Your task to perform on an android device: Play the last video I watched on Youtube Image 0: 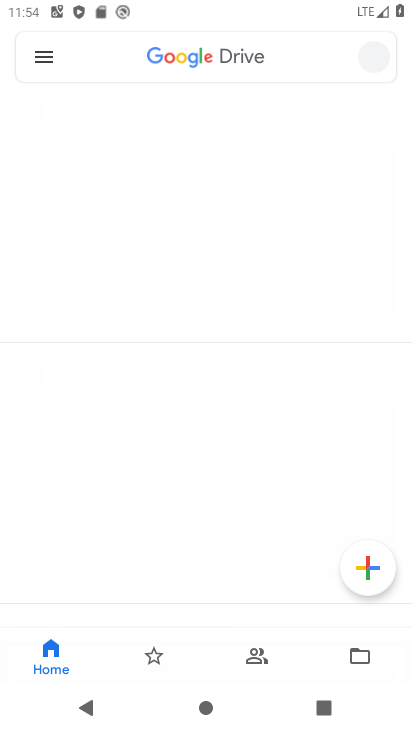
Step 0: drag from (335, 555) to (328, 291)
Your task to perform on an android device: Play the last video I watched on Youtube Image 1: 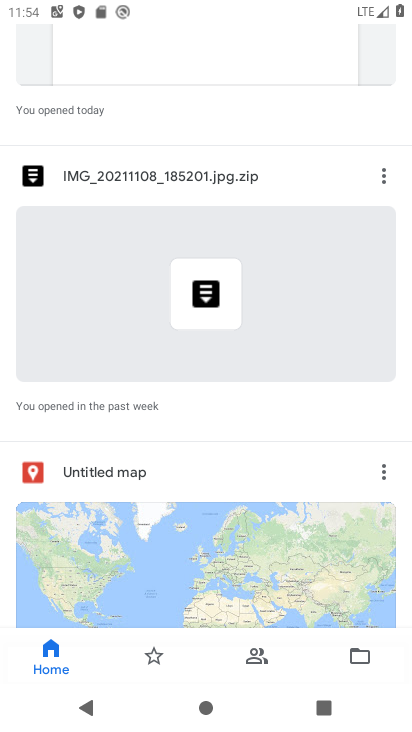
Step 1: press home button
Your task to perform on an android device: Play the last video I watched on Youtube Image 2: 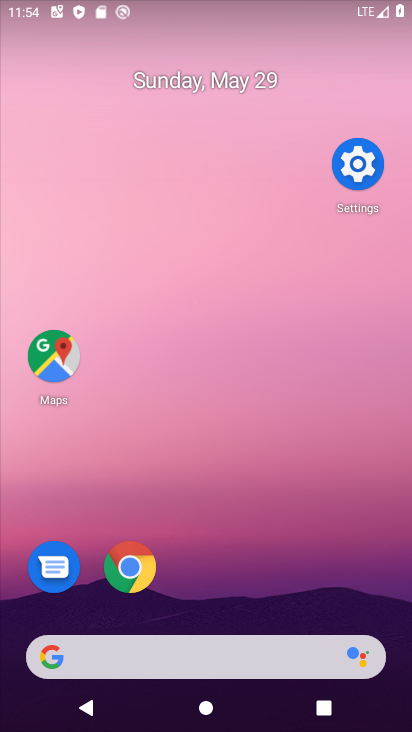
Step 2: drag from (323, 553) to (250, 170)
Your task to perform on an android device: Play the last video I watched on Youtube Image 3: 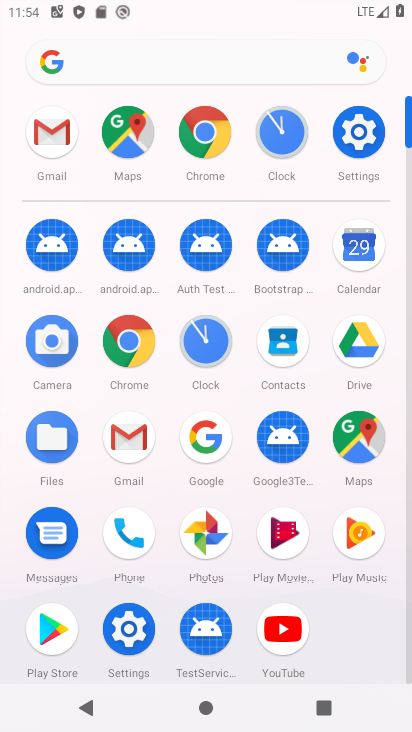
Step 3: click (274, 633)
Your task to perform on an android device: Play the last video I watched on Youtube Image 4: 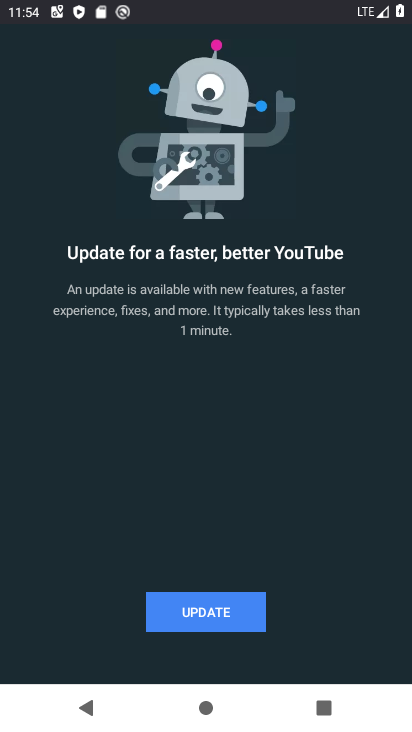
Step 4: click (240, 621)
Your task to perform on an android device: Play the last video I watched on Youtube Image 5: 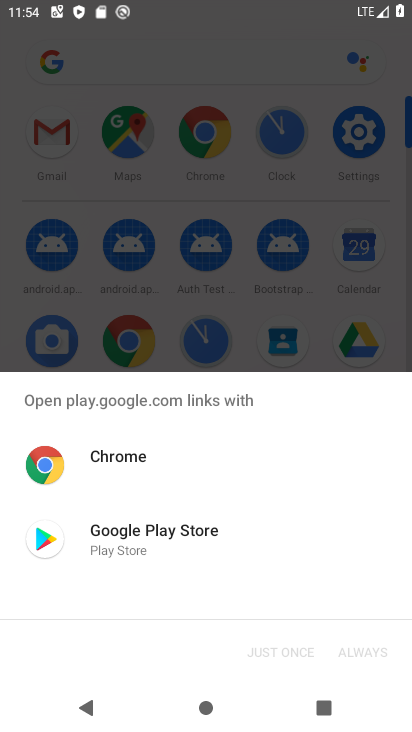
Step 5: click (172, 509)
Your task to perform on an android device: Play the last video I watched on Youtube Image 6: 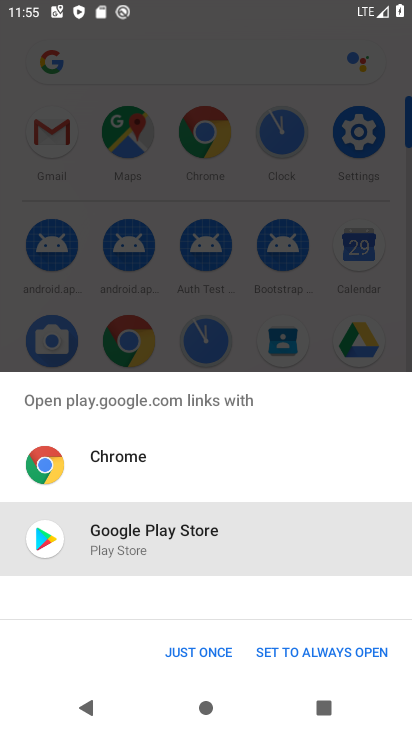
Step 6: click (190, 650)
Your task to perform on an android device: Play the last video I watched on Youtube Image 7: 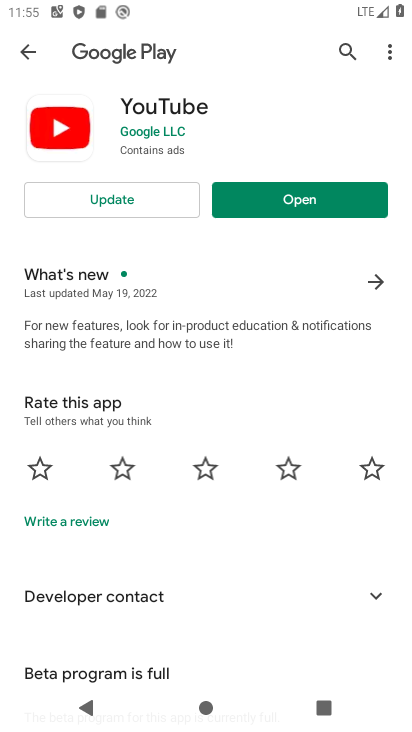
Step 7: click (130, 196)
Your task to perform on an android device: Play the last video I watched on Youtube Image 8: 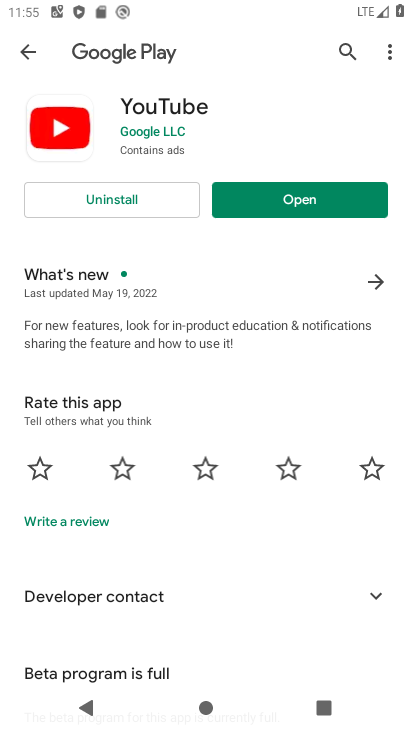
Step 8: click (317, 210)
Your task to perform on an android device: Play the last video I watched on Youtube Image 9: 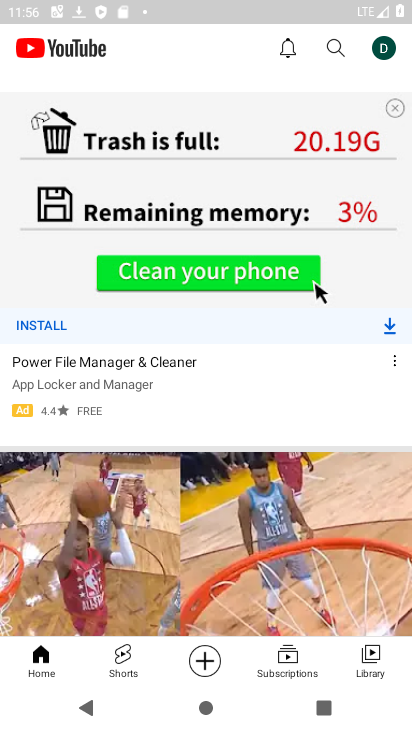
Step 9: click (368, 664)
Your task to perform on an android device: Play the last video I watched on Youtube Image 10: 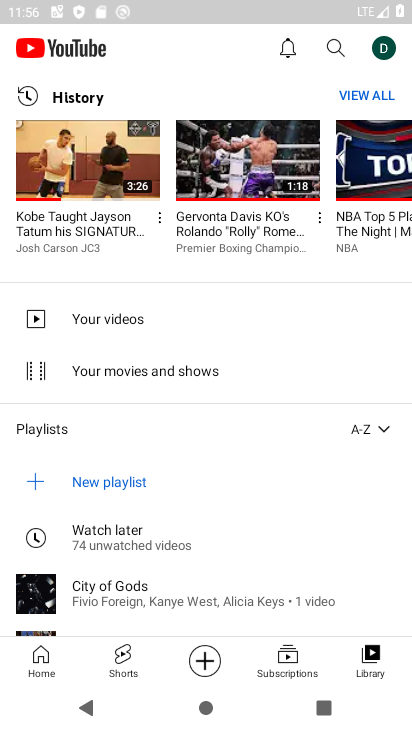
Step 10: task complete